Your task to perform on an android device: delete browsing data in the chrome app Image 0: 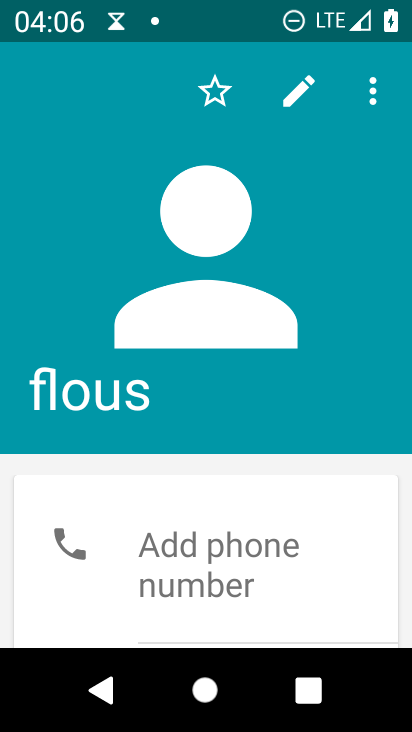
Step 0: press home button
Your task to perform on an android device: delete browsing data in the chrome app Image 1: 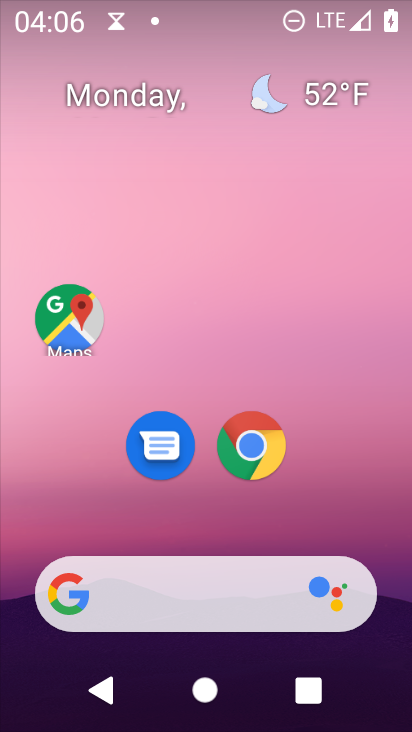
Step 1: click (255, 461)
Your task to perform on an android device: delete browsing data in the chrome app Image 2: 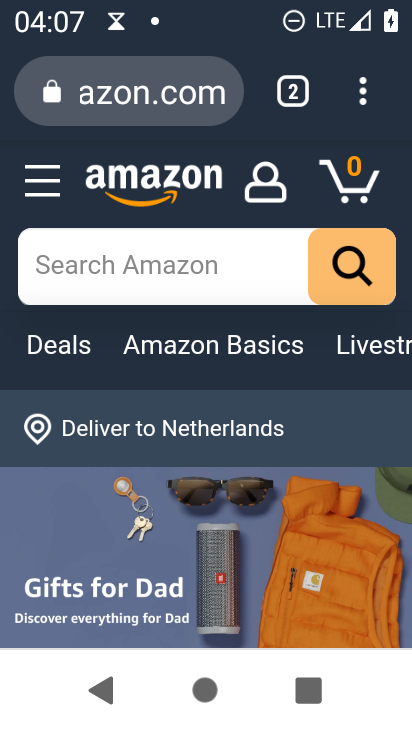
Step 2: click (362, 101)
Your task to perform on an android device: delete browsing data in the chrome app Image 3: 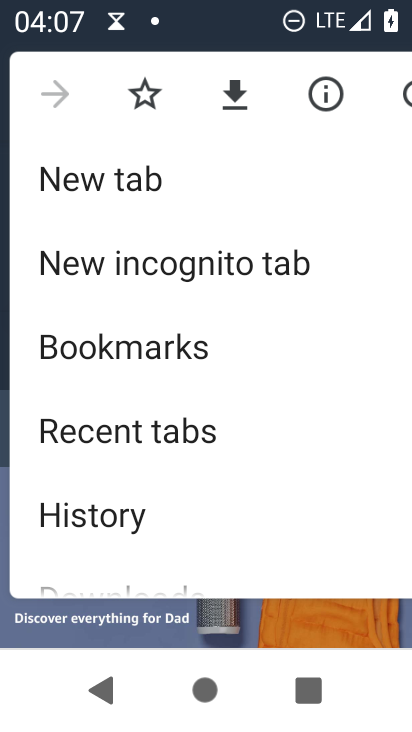
Step 3: drag from (147, 513) to (148, 233)
Your task to perform on an android device: delete browsing data in the chrome app Image 4: 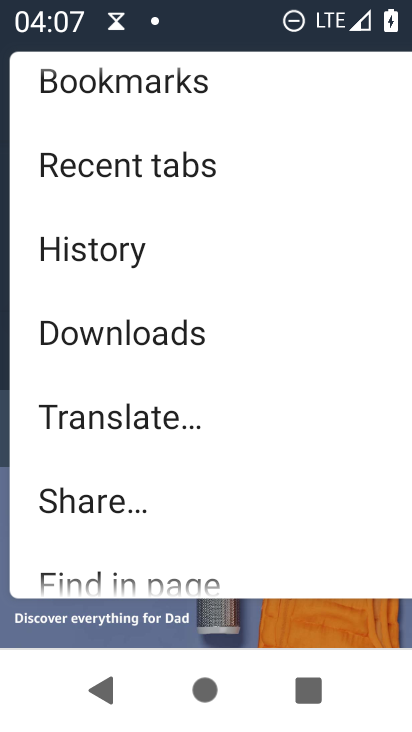
Step 4: drag from (136, 509) to (146, 195)
Your task to perform on an android device: delete browsing data in the chrome app Image 5: 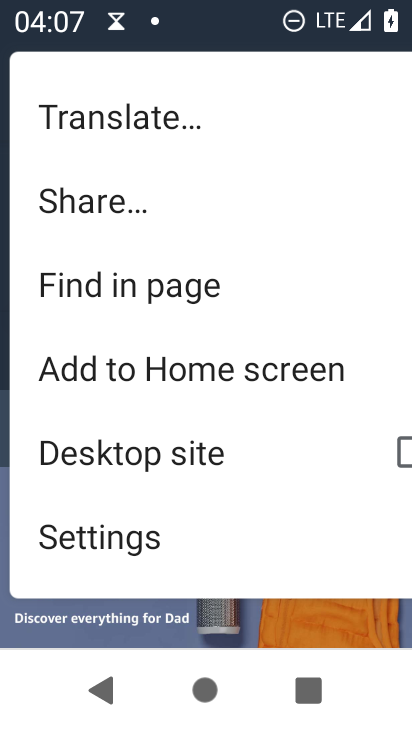
Step 5: drag from (116, 263) to (129, 539)
Your task to perform on an android device: delete browsing data in the chrome app Image 6: 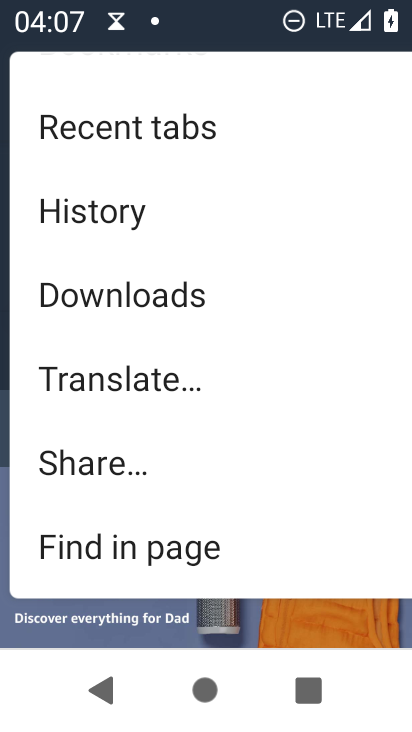
Step 6: click (101, 225)
Your task to perform on an android device: delete browsing data in the chrome app Image 7: 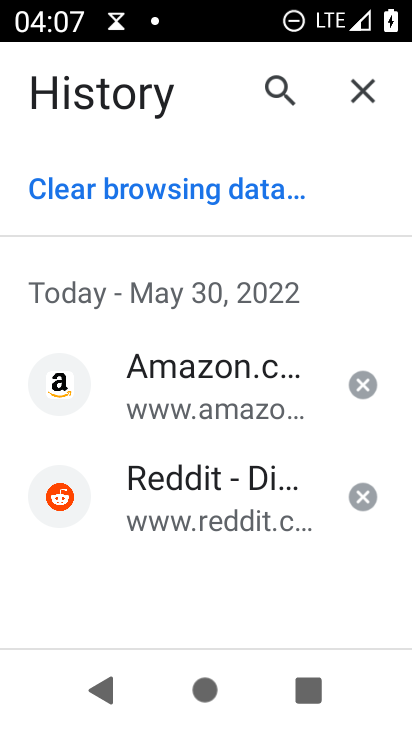
Step 7: click (141, 188)
Your task to perform on an android device: delete browsing data in the chrome app Image 8: 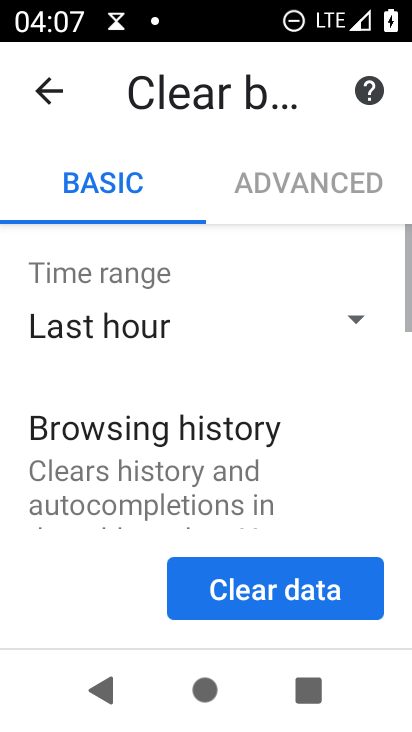
Step 8: drag from (200, 467) to (207, 317)
Your task to perform on an android device: delete browsing data in the chrome app Image 9: 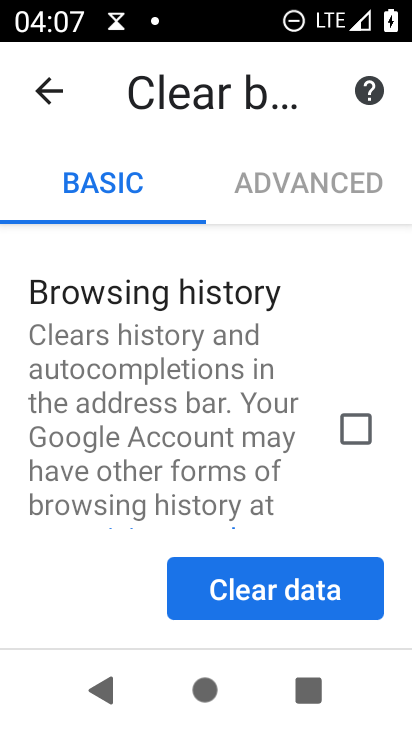
Step 9: drag from (225, 428) to (230, 338)
Your task to perform on an android device: delete browsing data in the chrome app Image 10: 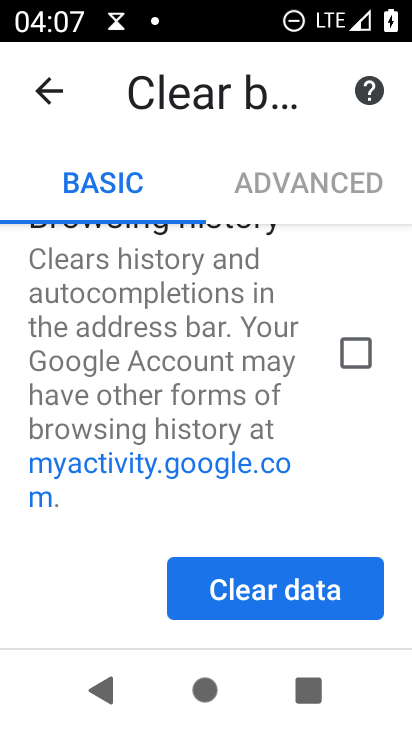
Step 10: click (362, 343)
Your task to perform on an android device: delete browsing data in the chrome app Image 11: 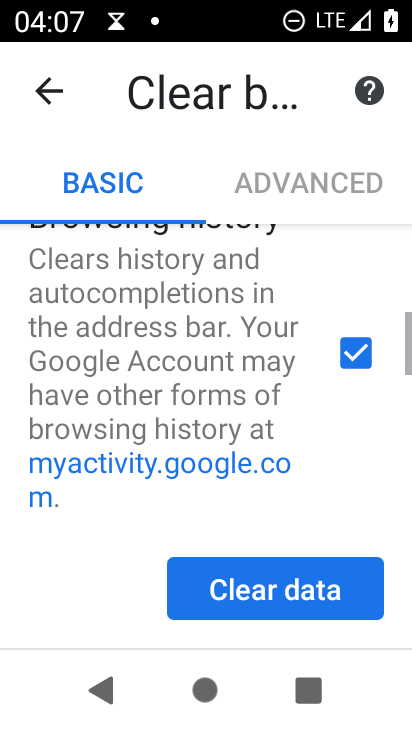
Step 11: drag from (245, 489) to (241, 222)
Your task to perform on an android device: delete browsing data in the chrome app Image 12: 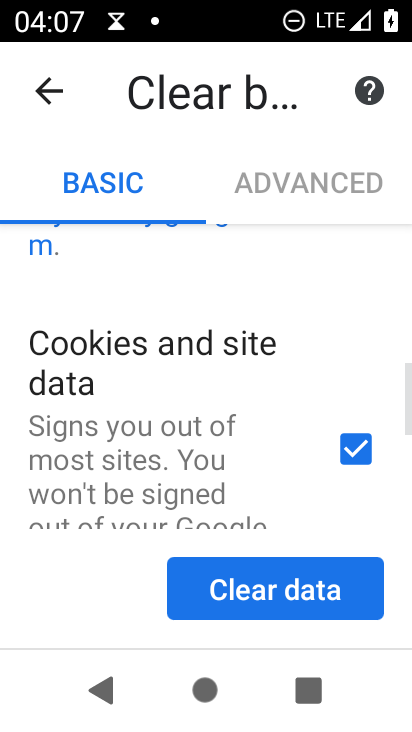
Step 12: drag from (193, 458) to (191, 108)
Your task to perform on an android device: delete browsing data in the chrome app Image 13: 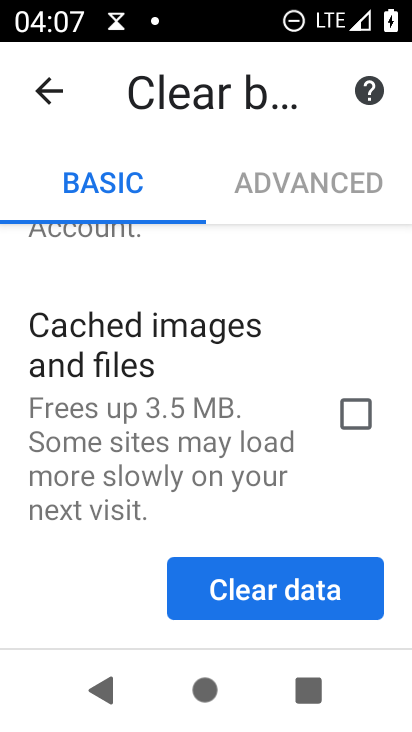
Step 13: click (372, 404)
Your task to perform on an android device: delete browsing data in the chrome app Image 14: 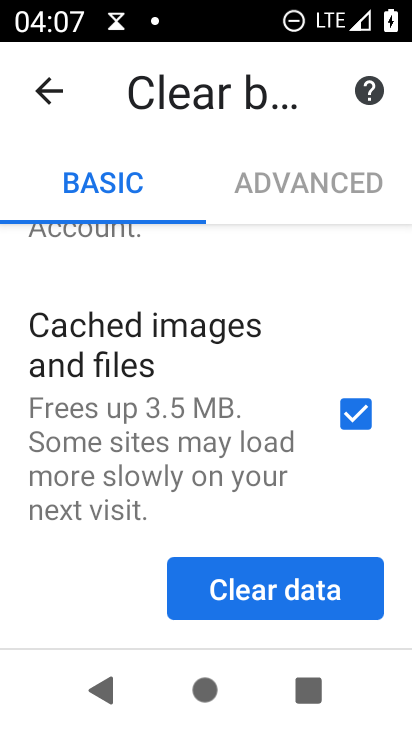
Step 14: click (332, 593)
Your task to perform on an android device: delete browsing data in the chrome app Image 15: 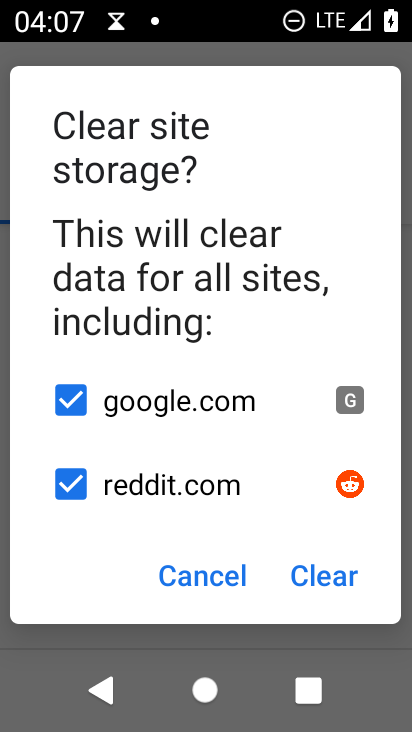
Step 15: click (344, 571)
Your task to perform on an android device: delete browsing data in the chrome app Image 16: 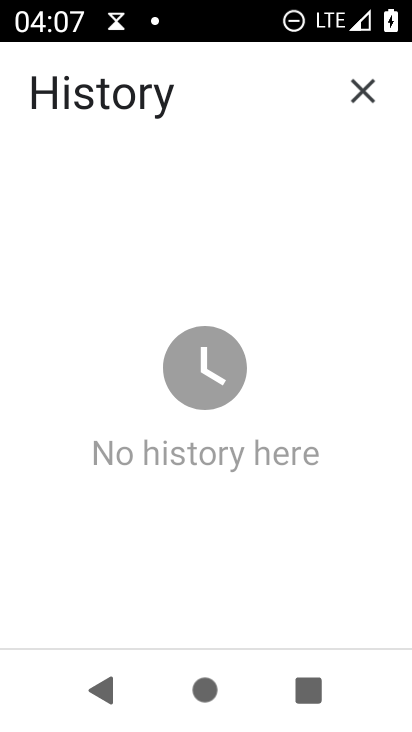
Step 16: task complete